Your task to perform on an android device: Go to privacy settings Image 0: 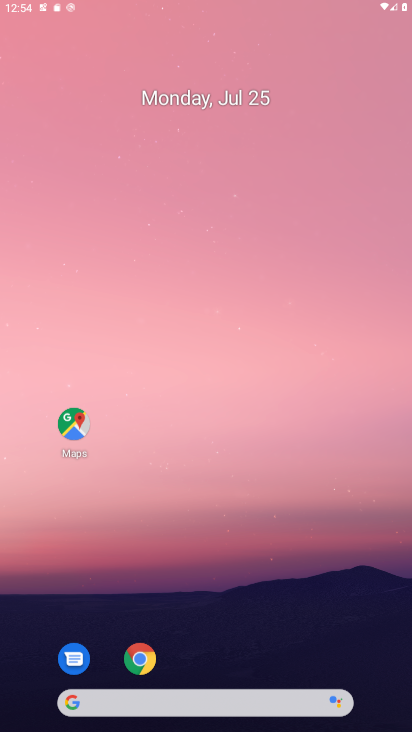
Step 0: press home button
Your task to perform on an android device: Go to privacy settings Image 1: 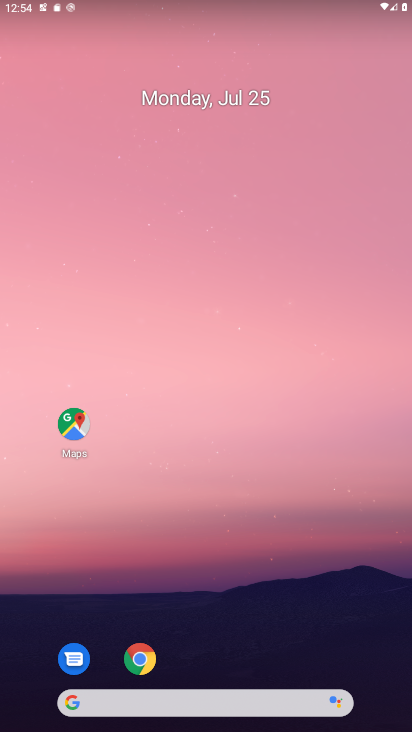
Step 1: drag from (202, 673) to (238, 144)
Your task to perform on an android device: Go to privacy settings Image 2: 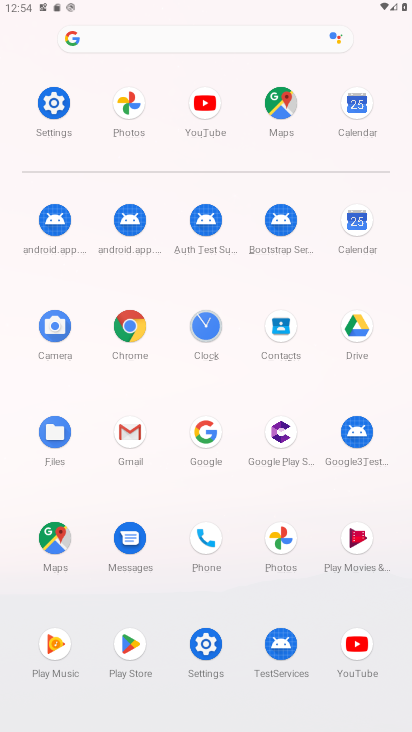
Step 2: click (54, 99)
Your task to perform on an android device: Go to privacy settings Image 3: 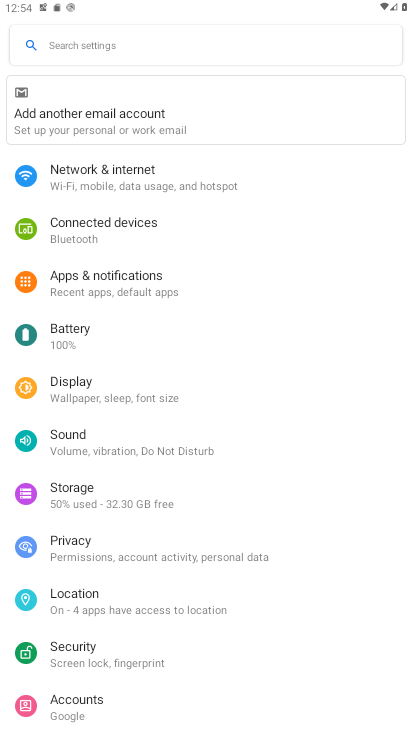
Step 3: click (95, 547)
Your task to perform on an android device: Go to privacy settings Image 4: 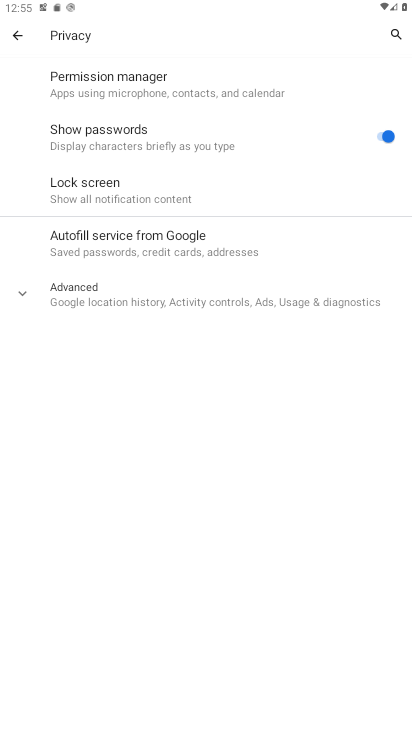
Step 4: click (37, 288)
Your task to perform on an android device: Go to privacy settings Image 5: 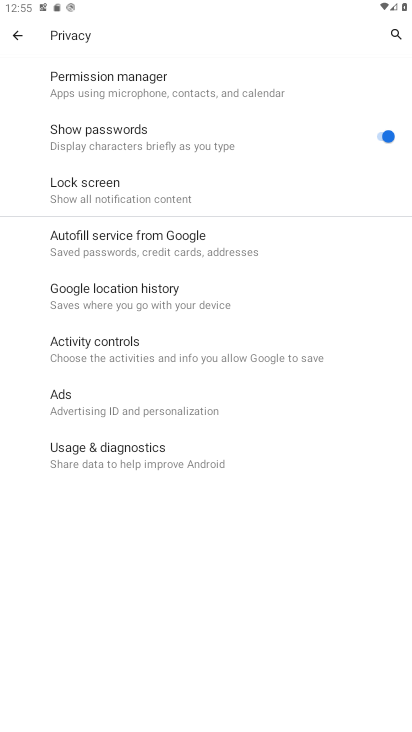
Step 5: task complete